Your task to perform on an android device: change the clock display to analog Image 0: 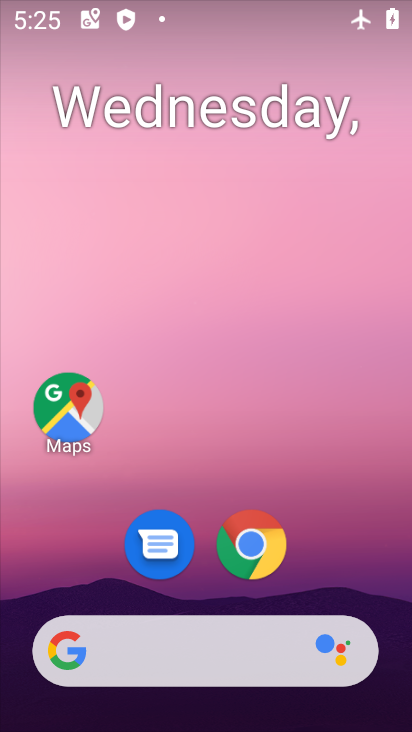
Step 0: drag from (397, 702) to (383, 154)
Your task to perform on an android device: change the clock display to analog Image 1: 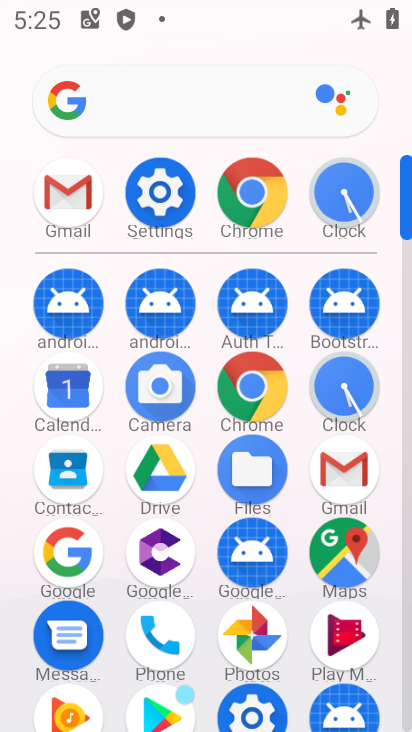
Step 1: click (322, 398)
Your task to perform on an android device: change the clock display to analog Image 2: 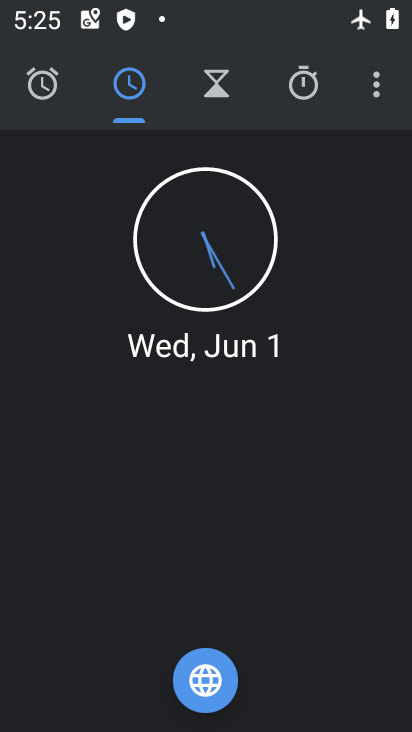
Step 2: click (377, 81)
Your task to perform on an android device: change the clock display to analog Image 3: 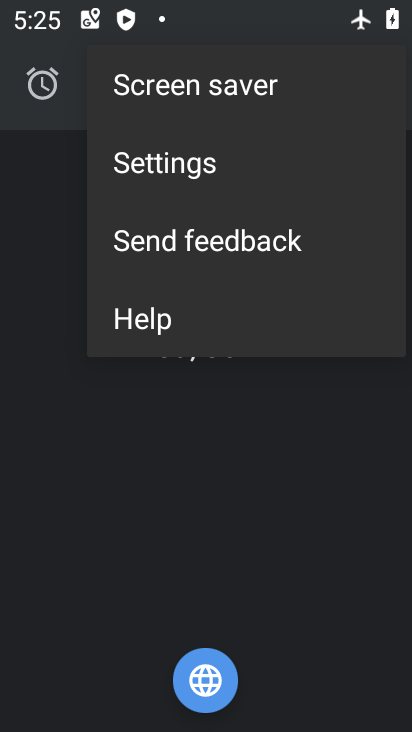
Step 3: click (158, 172)
Your task to perform on an android device: change the clock display to analog Image 4: 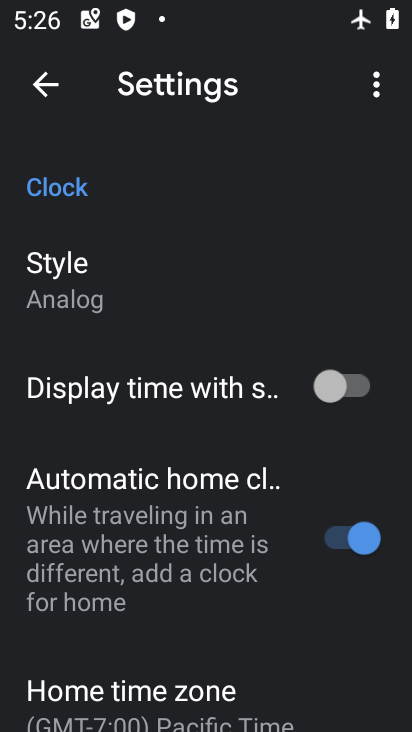
Step 4: task complete